Your task to perform on an android device: Turn off the flashlight Image 0: 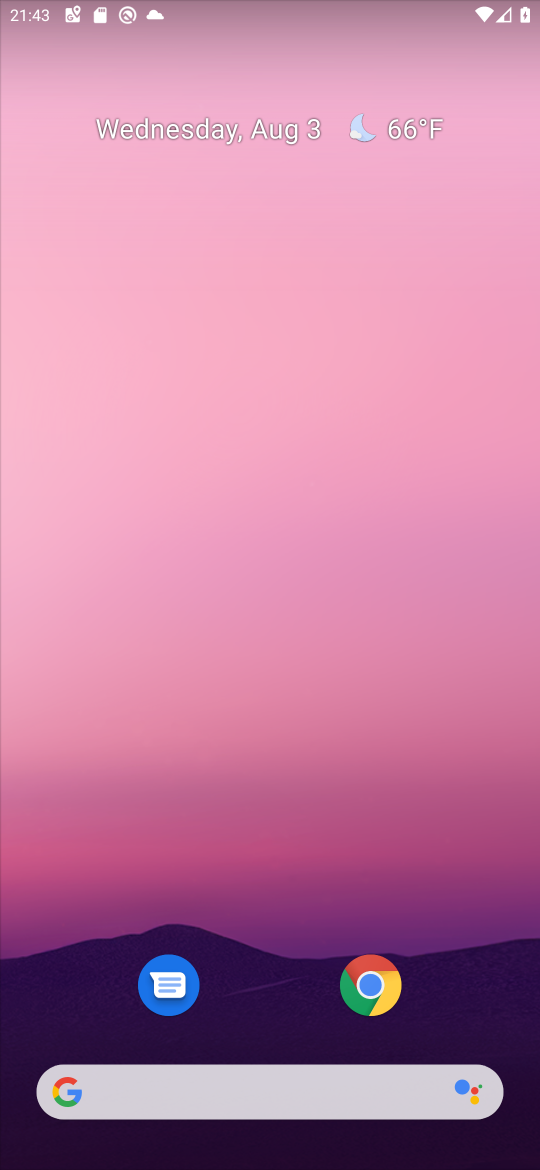
Step 0: drag from (292, 965) to (256, 257)
Your task to perform on an android device: Turn off the flashlight Image 1: 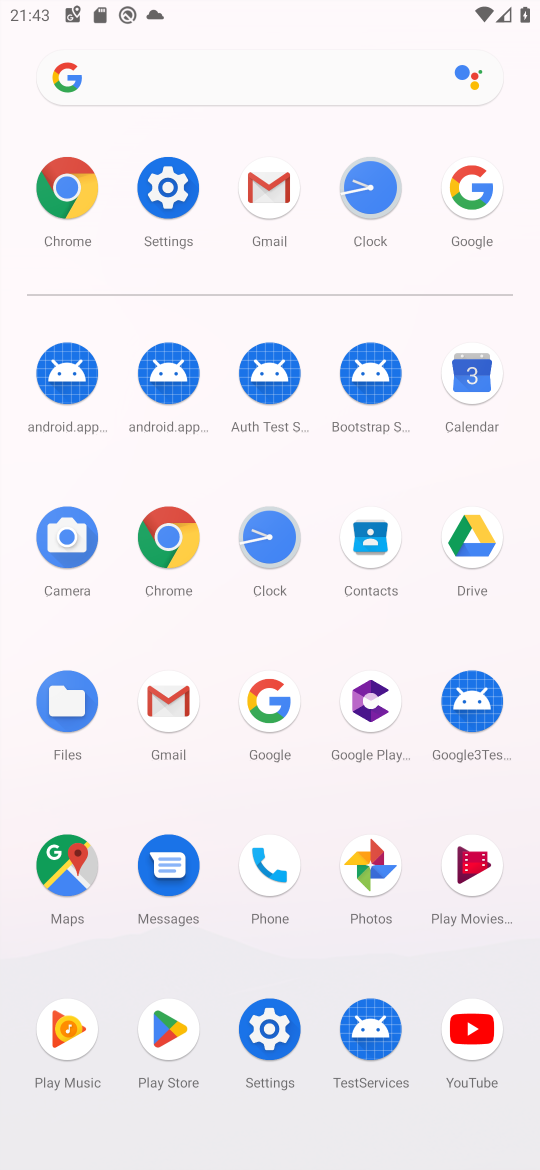
Step 1: click (180, 222)
Your task to perform on an android device: Turn off the flashlight Image 2: 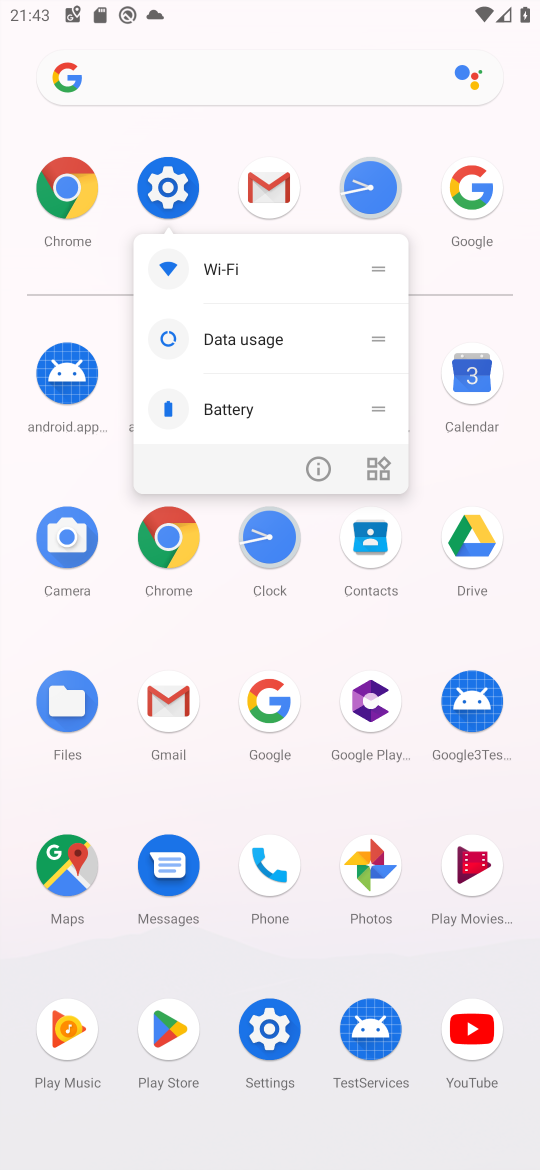
Step 2: click (172, 208)
Your task to perform on an android device: Turn off the flashlight Image 3: 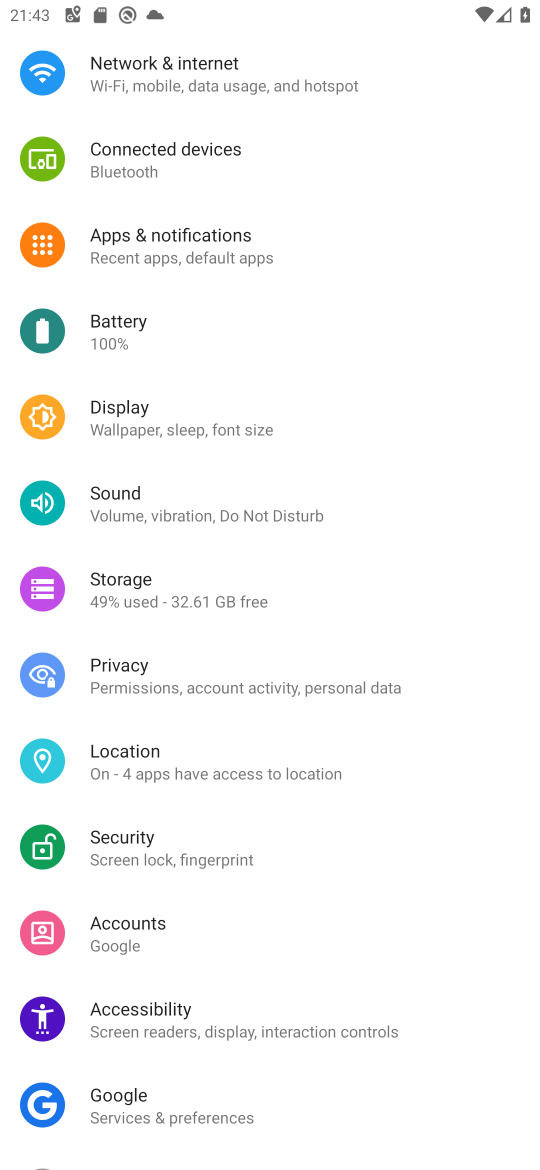
Step 3: task complete